Your task to perform on an android device: check out phone information Image 0: 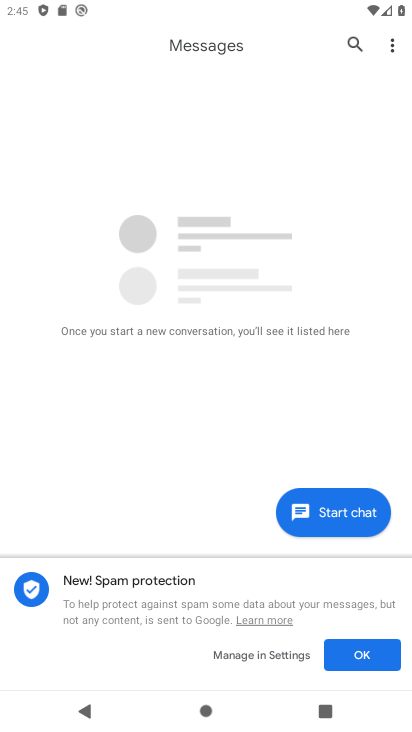
Step 0: press home button
Your task to perform on an android device: check out phone information Image 1: 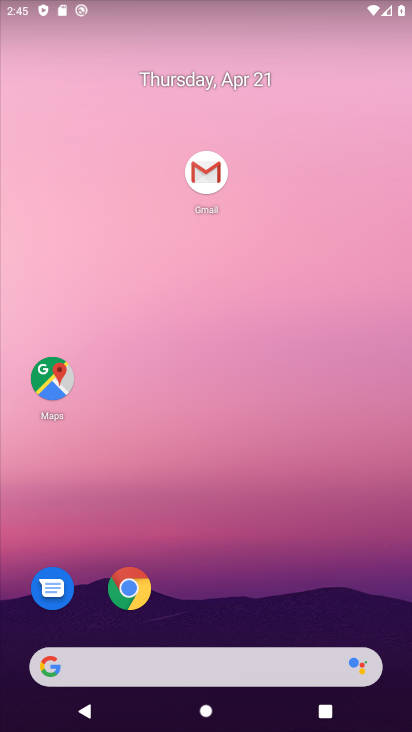
Step 1: drag from (274, 632) to (281, 88)
Your task to perform on an android device: check out phone information Image 2: 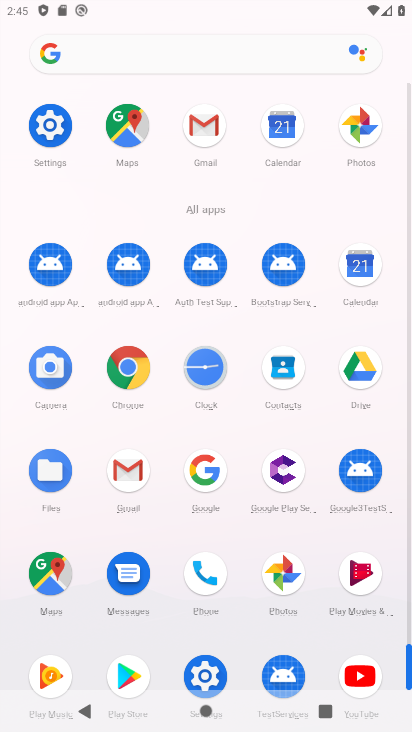
Step 2: click (204, 565)
Your task to perform on an android device: check out phone information Image 3: 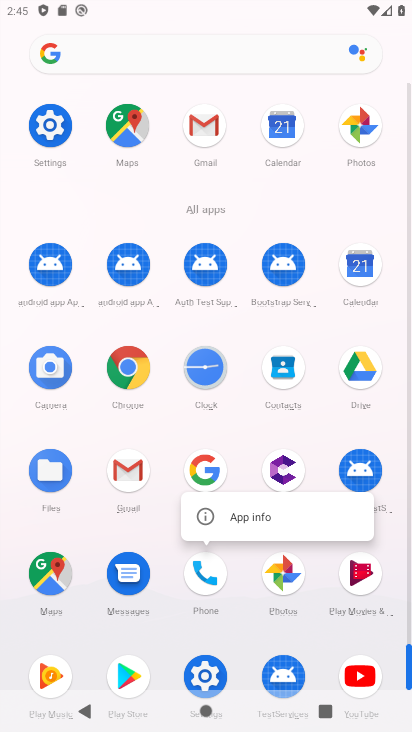
Step 3: click (232, 509)
Your task to perform on an android device: check out phone information Image 4: 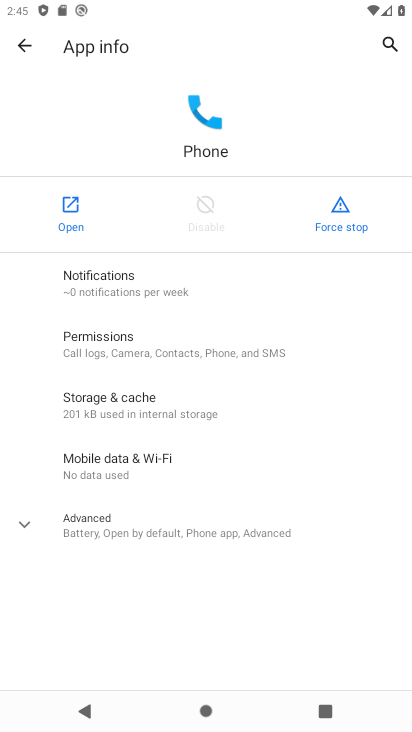
Step 4: task complete